Your task to perform on an android device: Open Reddit.com Image 0: 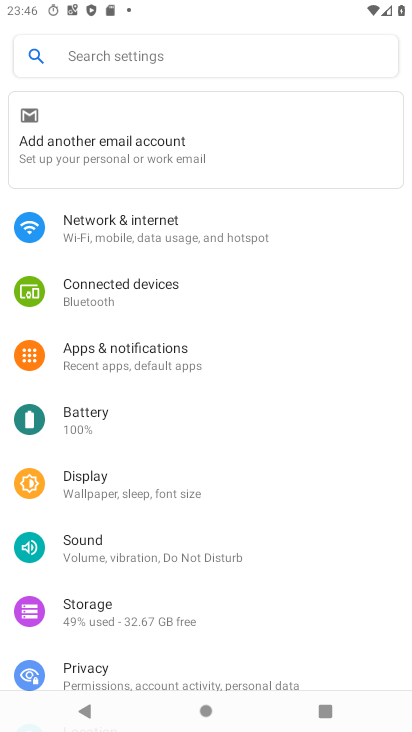
Step 0: press home button
Your task to perform on an android device: Open Reddit.com Image 1: 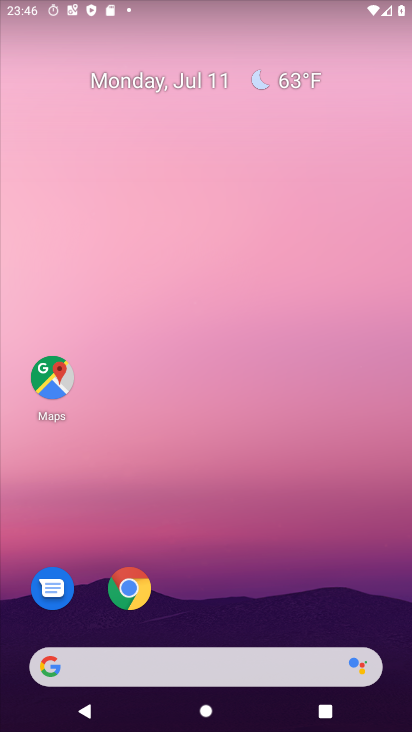
Step 1: click (127, 590)
Your task to perform on an android device: Open Reddit.com Image 2: 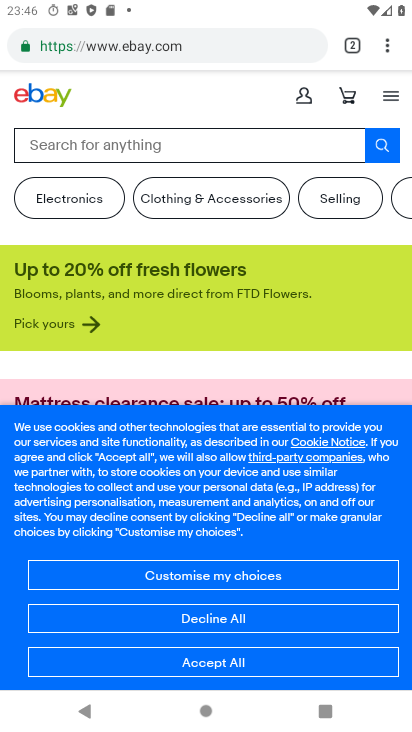
Step 2: click (385, 48)
Your task to perform on an android device: Open Reddit.com Image 3: 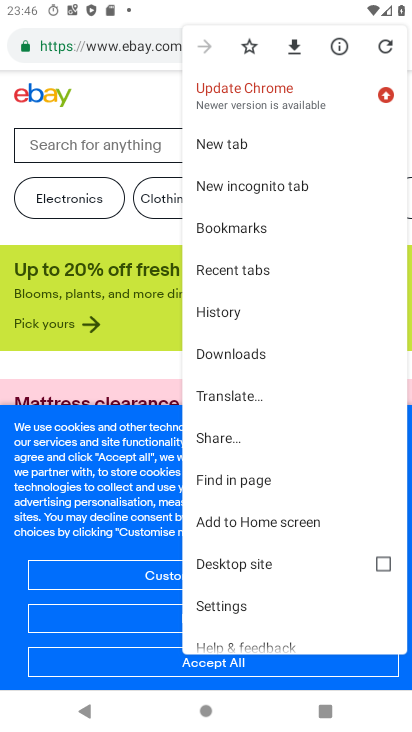
Step 3: click (225, 143)
Your task to perform on an android device: Open Reddit.com Image 4: 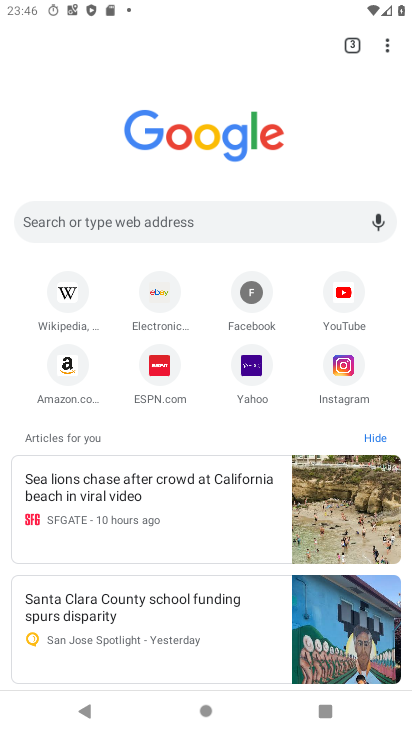
Step 4: click (172, 226)
Your task to perform on an android device: Open Reddit.com Image 5: 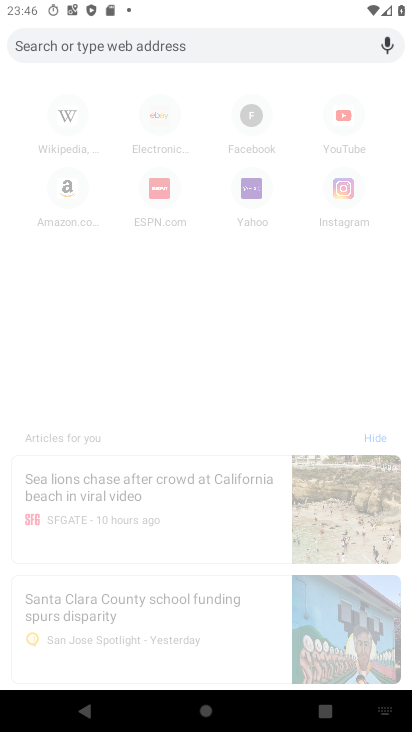
Step 5: type "Reddit.com"
Your task to perform on an android device: Open Reddit.com Image 6: 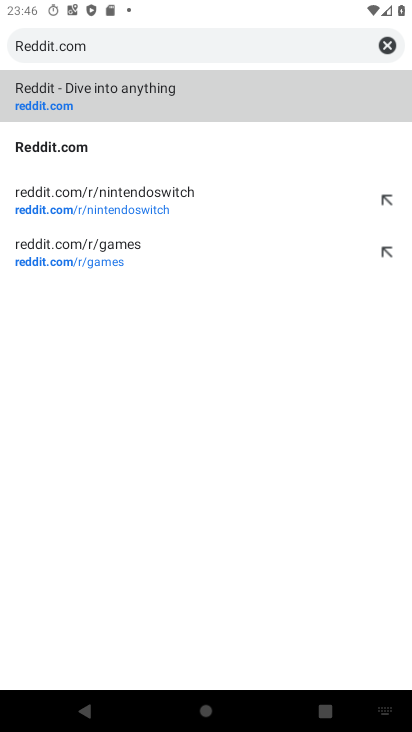
Step 6: click (84, 143)
Your task to perform on an android device: Open Reddit.com Image 7: 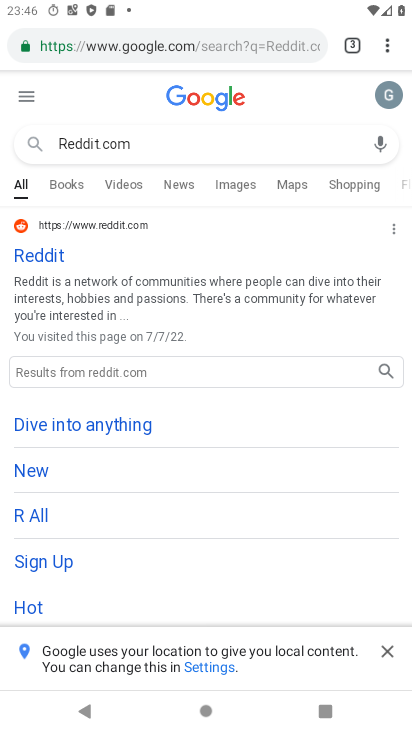
Step 7: click (28, 257)
Your task to perform on an android device: Open Reddit.com Image 8: 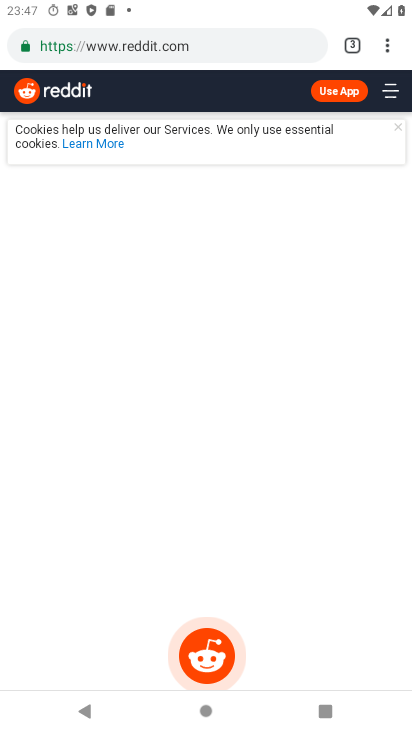
Step 8: task complete